Your task to perform on an android device: Open the web browser Image 0: 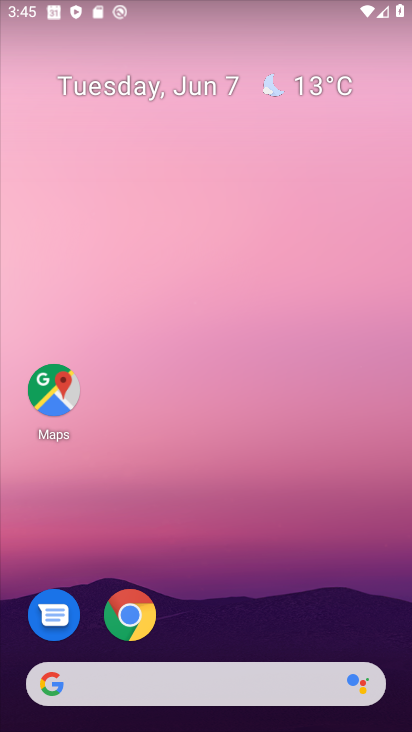
Step 0: click (131, 625)
Your task to perform on an android device: Open the web browser Image 1: 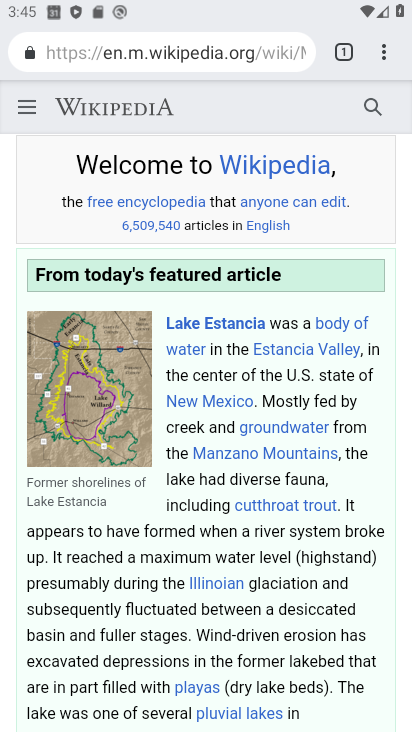
Step 1: task complete